Your task to perform on an android device: see sites visited before in the chrome app Image 0: 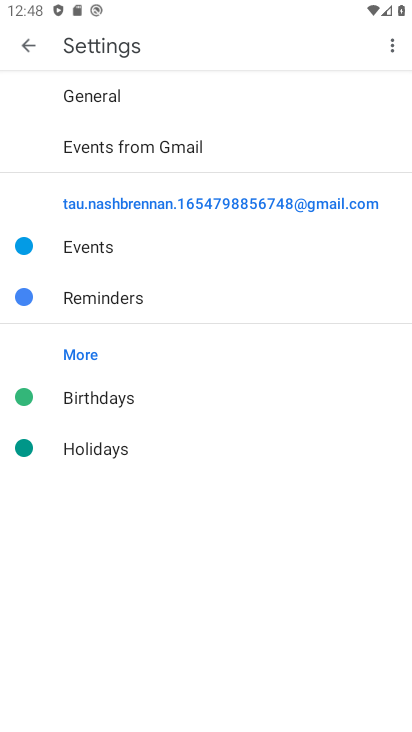
Step 0: press home button
Your task to perform on an android device: see sites visited before in the chrome app Image 1: 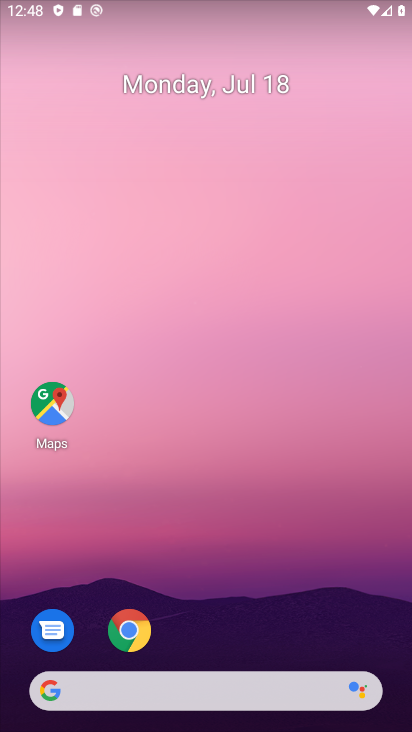
Step 1: click (131, 623)
Your task to perform on an android device: see sites visited before in the chrome app Image 2: 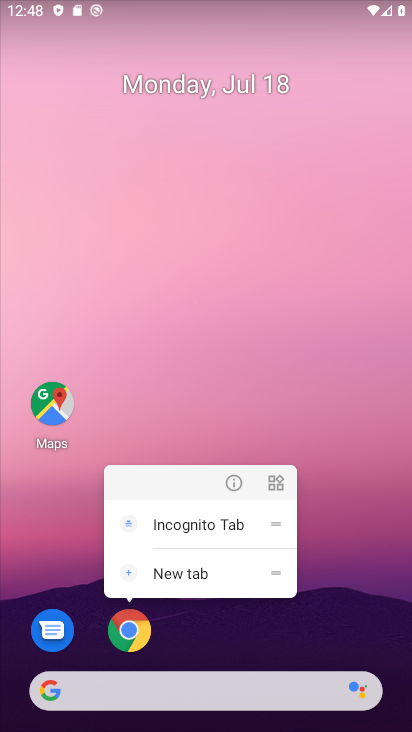
Step 2: click (131, 624)
Your task to perform on an android device: see sites visited before in the chrome app Image 3: 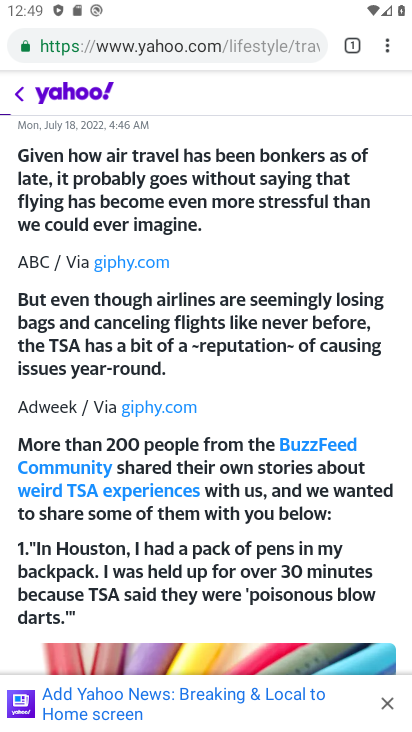
Step 3: click (386, 47)
Your task to perform on an android device: see sites visited before in the chrome app Image 4: 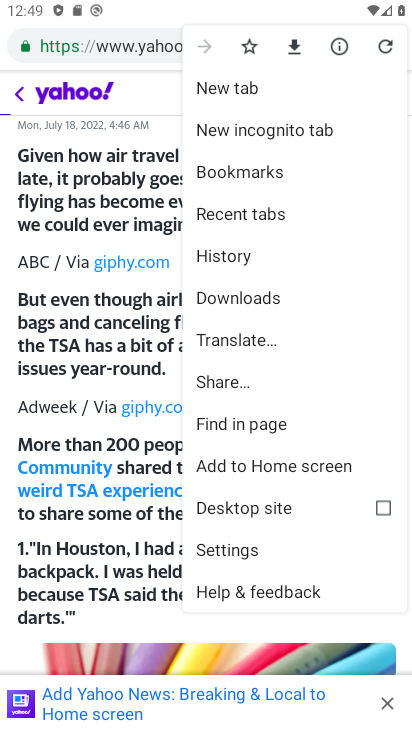
Step 4: click (263, 208)
Your task to perform on an android device: see sites visited before in the chrome app Image 5: 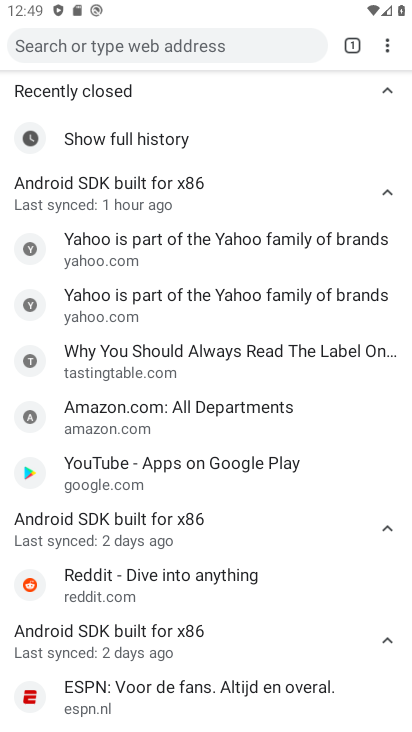
Step 5: task complete